Your task to perform on an android device: open sync settings in chrome Image 0: 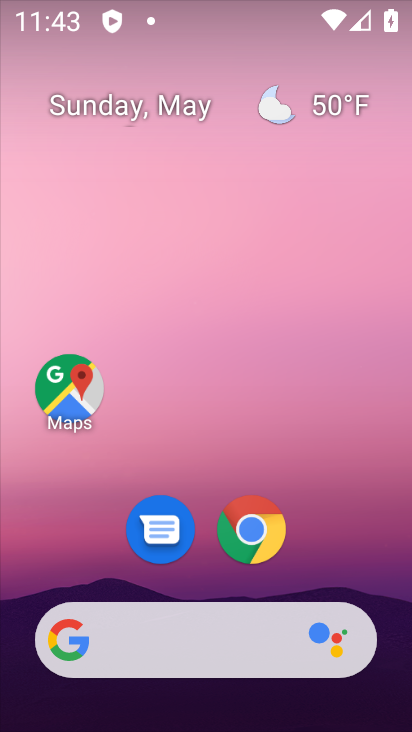
Step 0: click (267, 544)
Your task to perform on an android device: open sync settings in chrome Image 1: 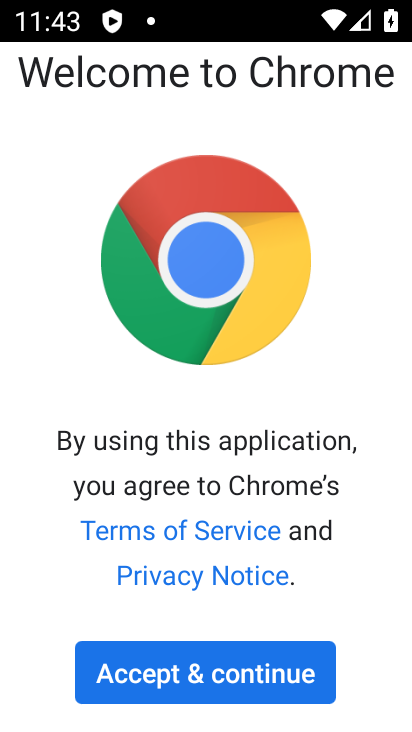
Step 1: click (208, 669)
Your task to perform on an android device: open sync settings in chrome Image 2: 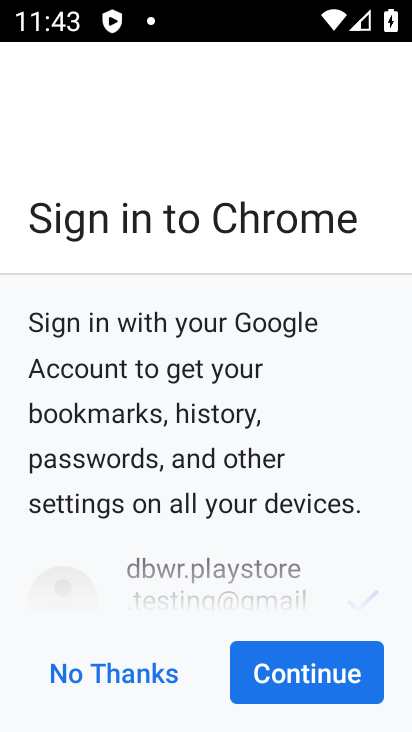
Step 2: click (208, 669)
Your task to perform on an android device: open sync settings in chrome Image 3: 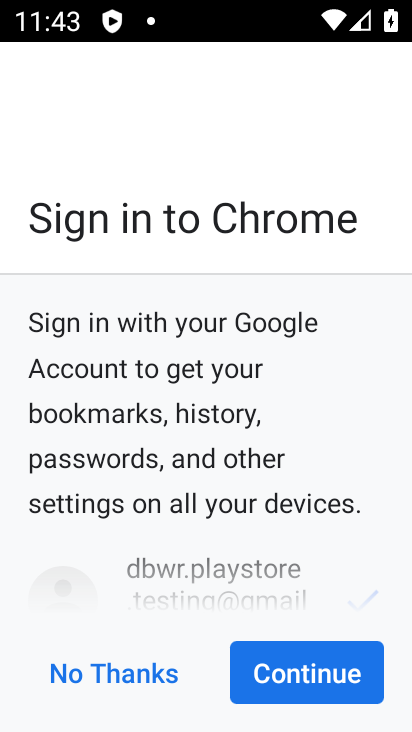
Step 3: click (208, 669)
Your task to perform on an android device: open sync settings in chrome Image 4: 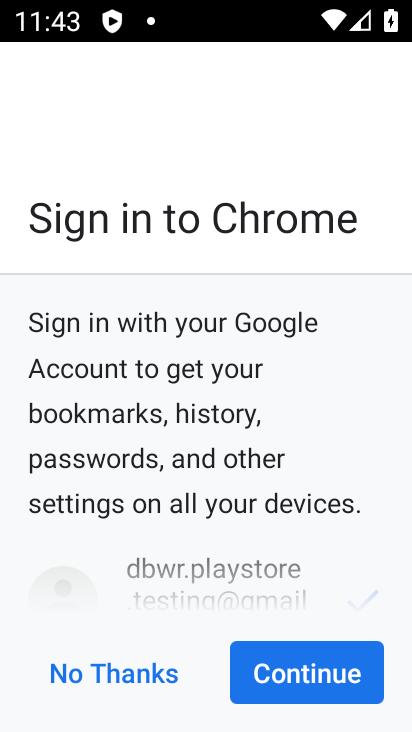
Step 4: click (321, 666)
Your task to perform on an android device: open sync settings in chrome Image 5: 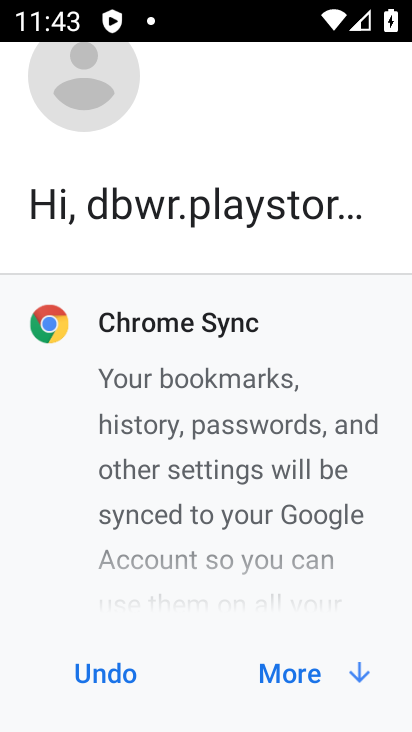
Step 5: click (322, 670)
Your task to perform on an android device: open sync settings in chrome Image 6: 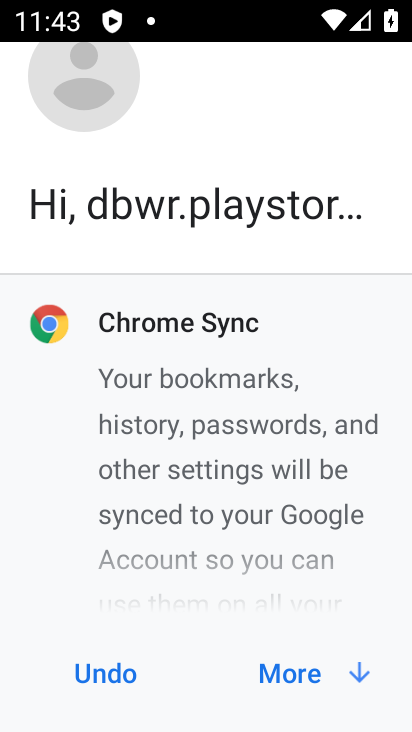
Step 6: click (322, 670)
Your task to perform on an android device: open sync settings in chrome Image 7: 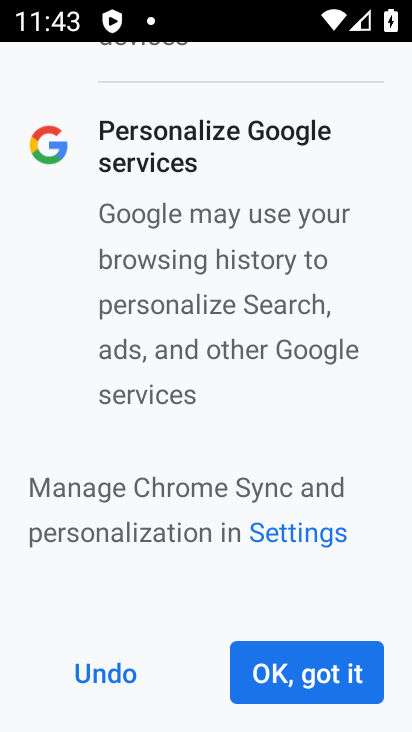
Step 7: click (322, 670)
Your task to perform on an android device: open sync settings in chrome Image 8: 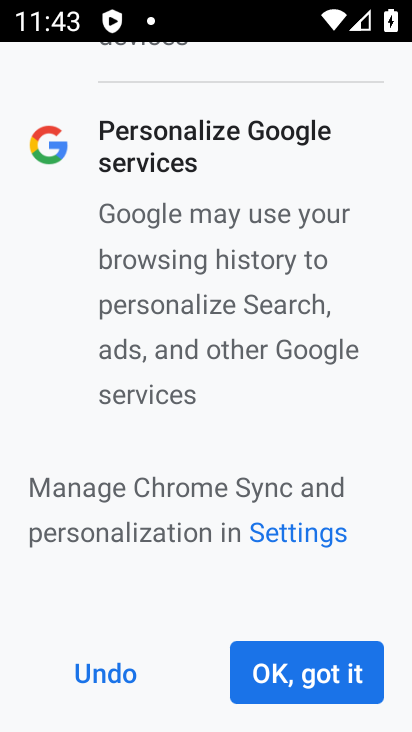
Step 8: click (322, 670)
Your task to perform on an android device: open sync settings in chrome Image 9: 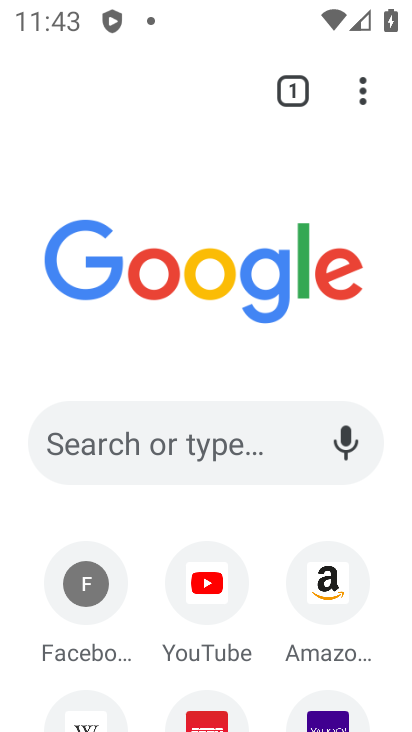
Step 9: drag from (365, 97) to (331, 582)
Your task to perform on an android device: open sync settings in chrome Image 10: 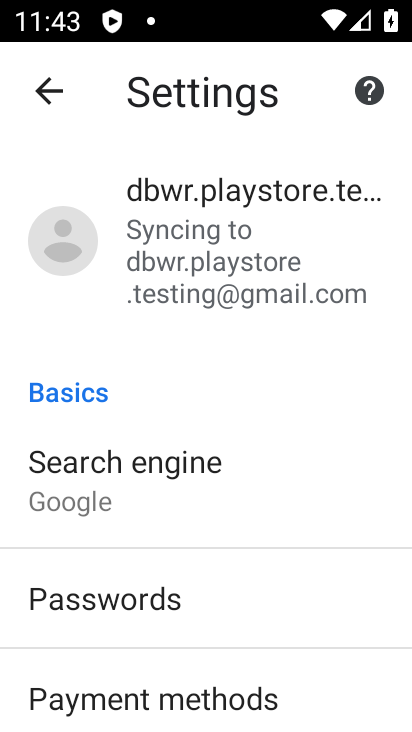
Step 10: click (331, 291)
Your task to perform on an android device: open sync settings in chrome Image 11: 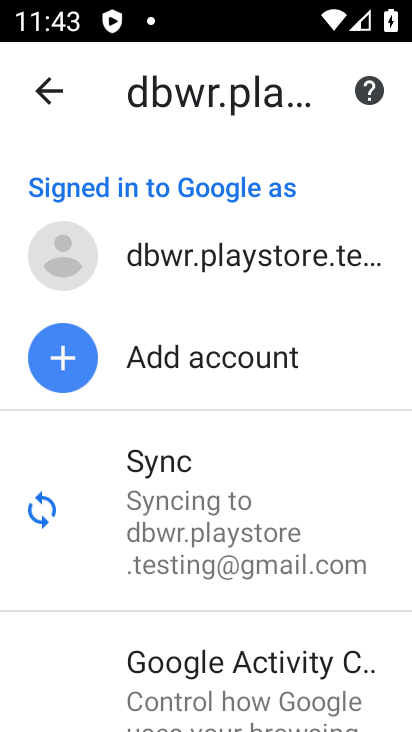
Step 11: click (236, 555)
Your task to perform on an android device: open sync settings in chrome Image 12: 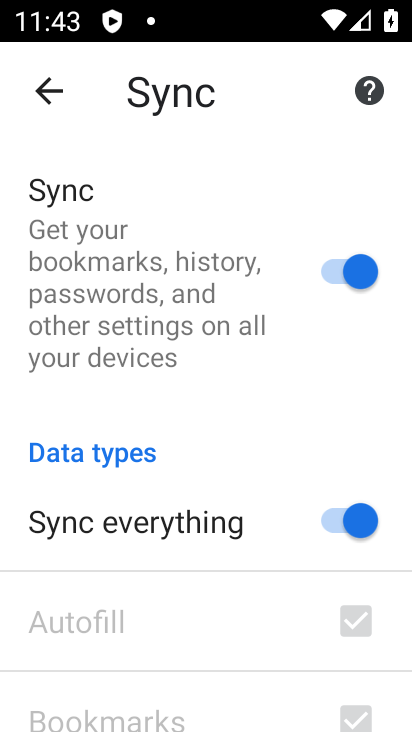
Step 12: task complete